Your task to perform on an android device: change alarm snooze length Image 0: 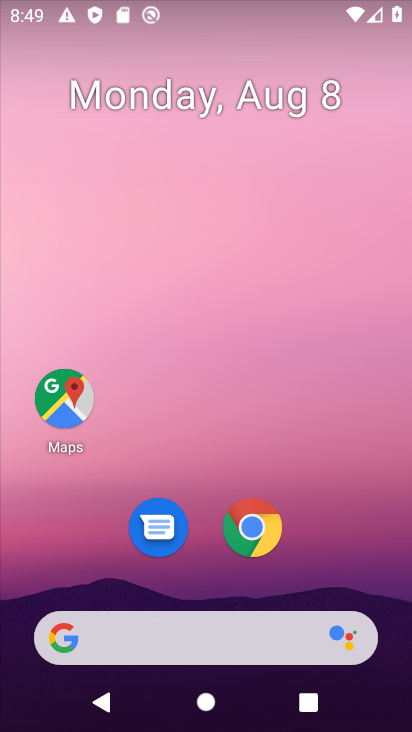
Step 0: click (376, 451)
Your task to perform on an android device: change alarm snooze length Image 1: 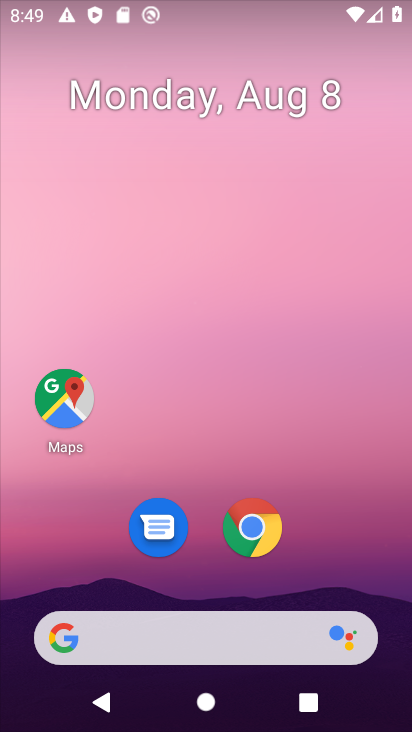
Step 1: drag from (260, 366) to (262, 166)
Your task to perform on an android device: change alarm snooze length Image 2: 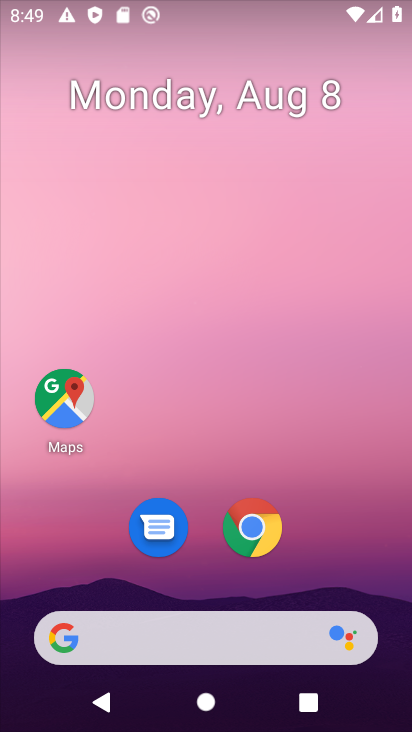
Step 2: drag from (203, 484) to (207, 162)
Your task to perform on an android device: change alarm snooze length Image 3: 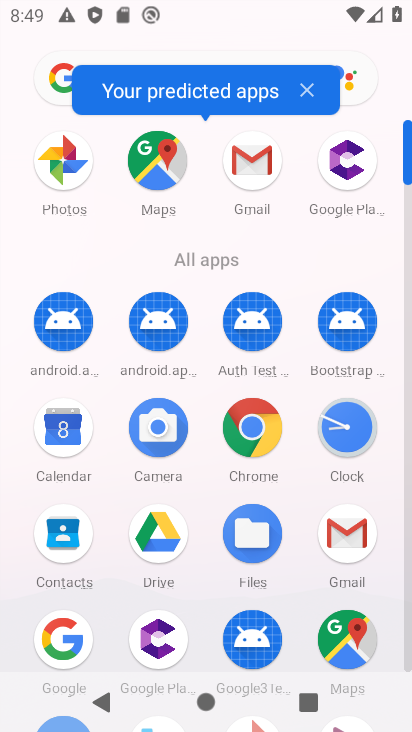
Step 3: drag from (223, 580) to (203, 346)
Your task to perform on an android device: change alarm snooze length Image 4: 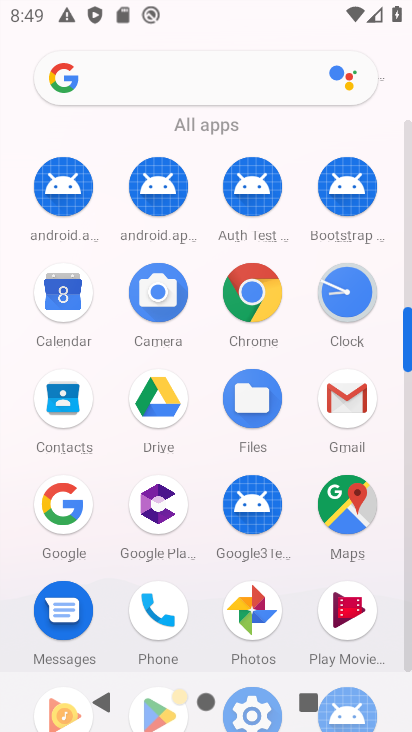
Step 4: drag from (154, 432) to (150, 262)
Your task to perform on an android device: change alarm snooze length Image 5: 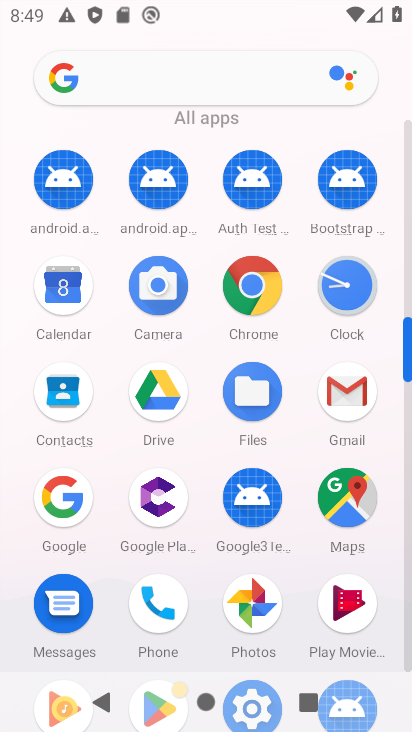
Step 5: drag from (298, 396) to (295, 564)
Your task to perform on an android device: change alarm snooze length Image 6: 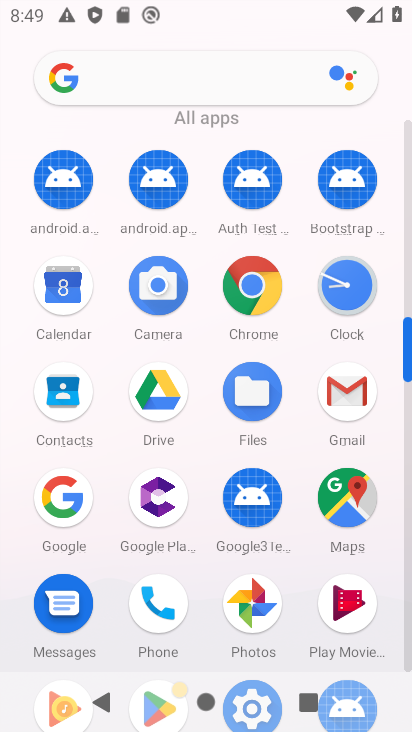
Step 6: click (343, 277)
Your task to perform on an android device: change alarm snooze length Image 7: 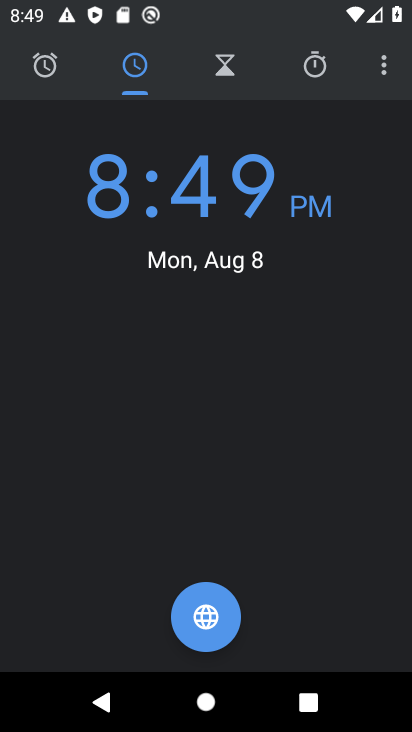
Step 7: click (391, 75)
Your task to perform on an android device: change alarm snooze length Image 8: 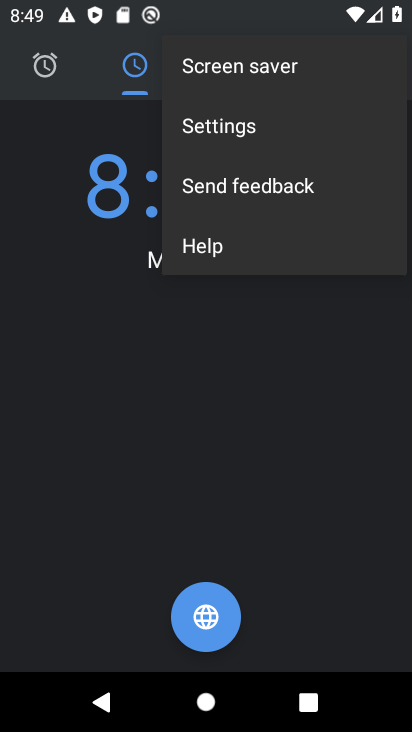
Step 8: click (238, 135)
Your task to perform on an android device: change alarm snooze length Image 9: 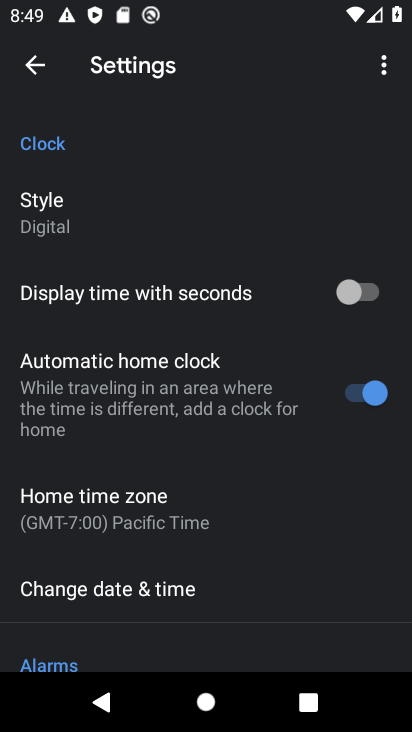
Step 9: drag from (177, 468) to (192, 242)
Your task to perform on an android device: change alarm snooze length Image 10: 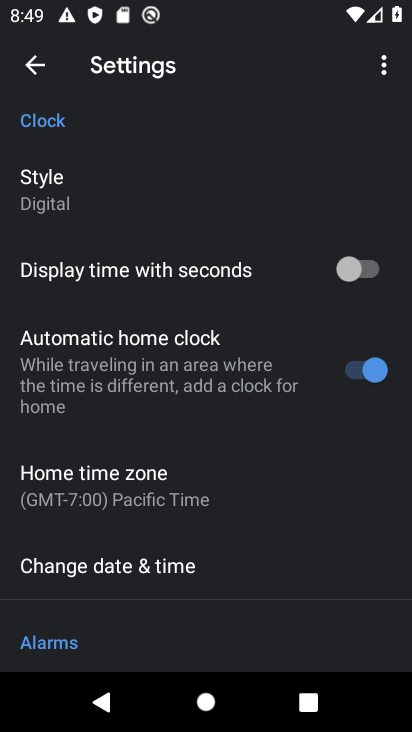
Step 10: drag from (204, 488) to (244, 105)
Your task to perform on an android device: change alarm snooze length Image 11: 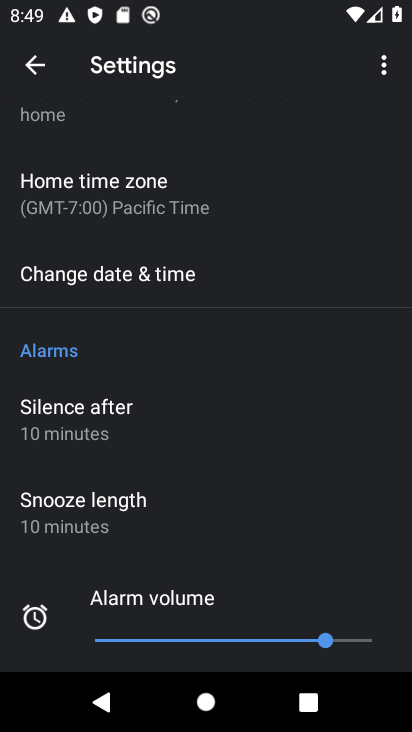
Step 11: click (127, 519)
Your task to perform on an android device: change alarm snooze length Image 12: 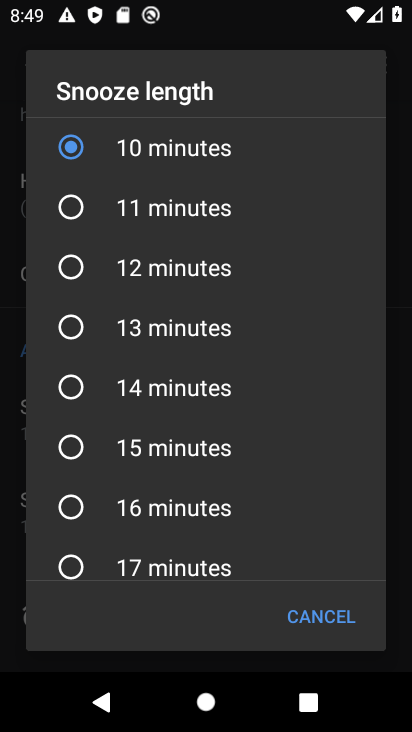
Step 12: click (72, 334)
Your task to perform on an android device: change alarm snooze length Image 13: 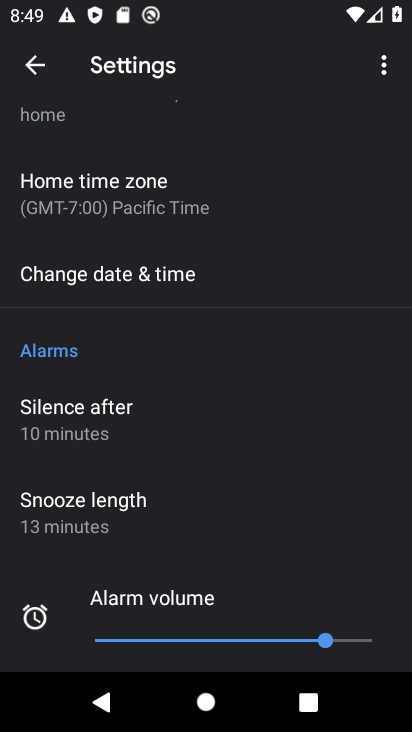
Step 13: task complete